Your task to perform on an android device: open a bookmark in the chrome app Image 0: 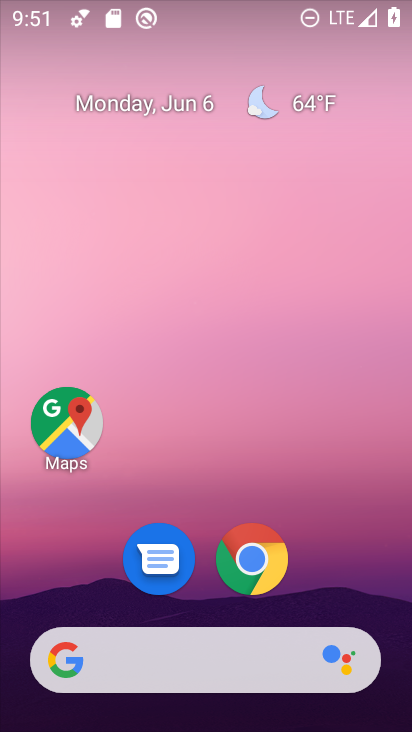
Step 0: click (256, 570)
Your task to perform on an android device: open a bookmark in the chrome app Image 1: 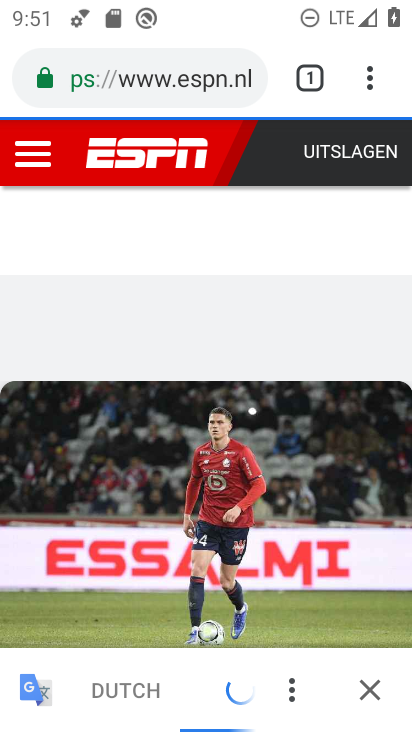
Step 1: click (370, 87)
Your task to perform on an android device: open a bookmark in the chrome app Image 2: 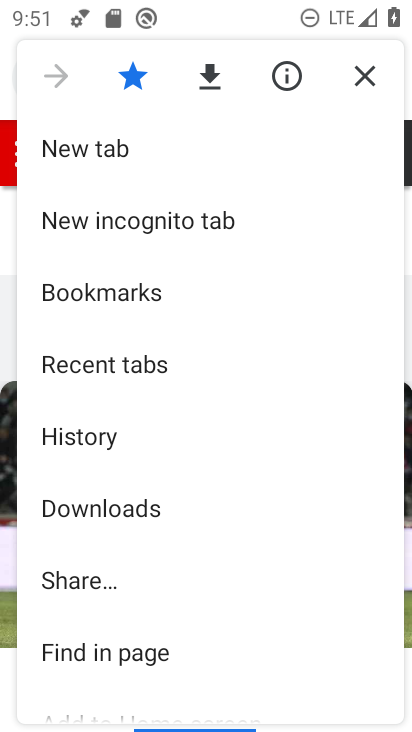
Step 2: click (117, 291)
Your task to perform on an android device: open a bookmark in the chrome app Image 3: 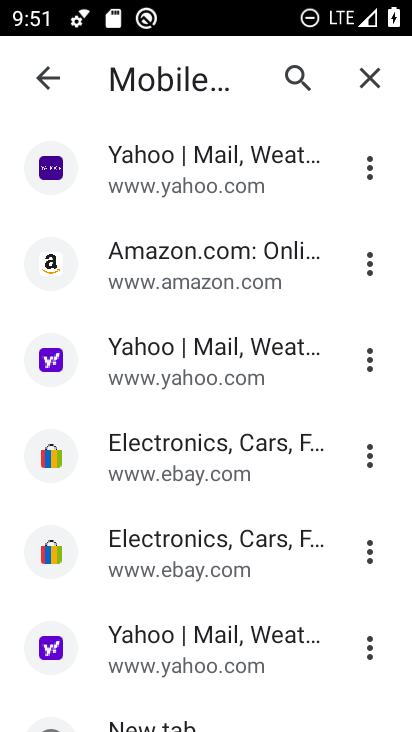
Step 3: click (215, 168)
Your task to perform on an android device: open a bookmark in the chrome app Image 4: 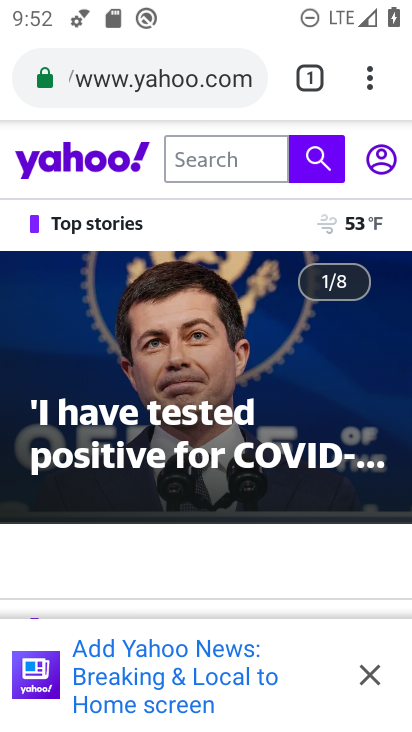
Step 4: task complete